Your task to perform on an android device: Search for "bose soundlink mini" on bestbuy, select the first entry, and add it to the cart. Image 0: 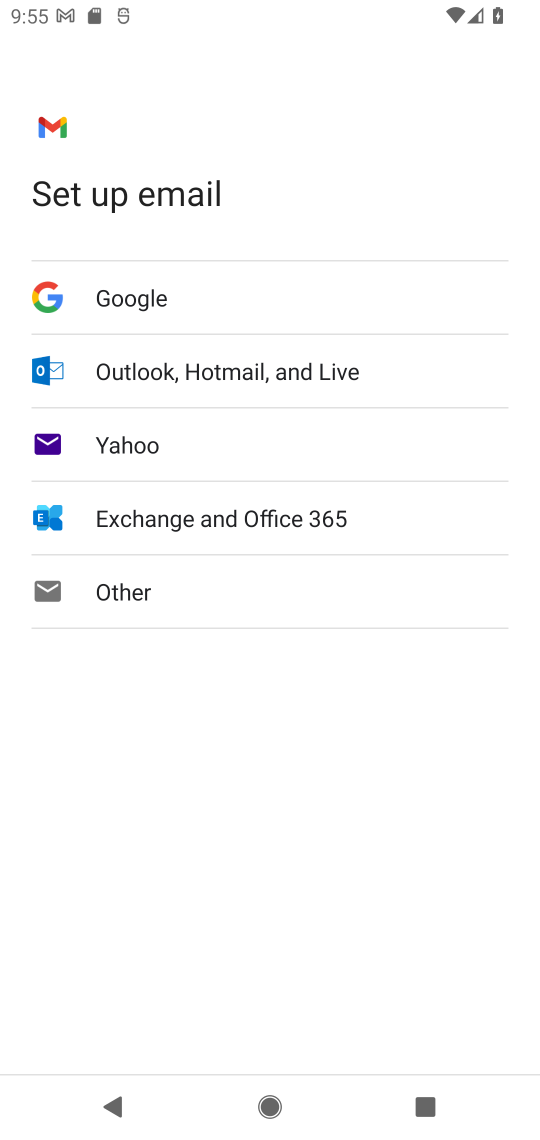
Step 0: press home button
Your task to perform on an android device: Search for "bose soundlink mini" on bestbuy, select the first entry, and add it to the cart. Image 1: 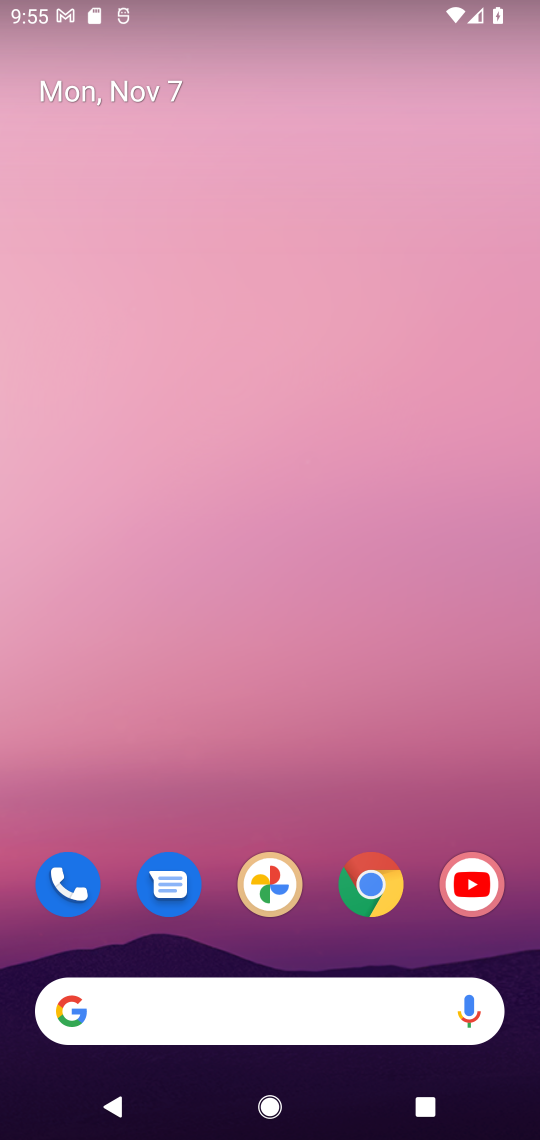
Step 1: click (364, 860)
Your task to perform on an android device: Search for "bose soundlink mini" on bestbuy, select the first entry, and add it to the cart. Image 2: 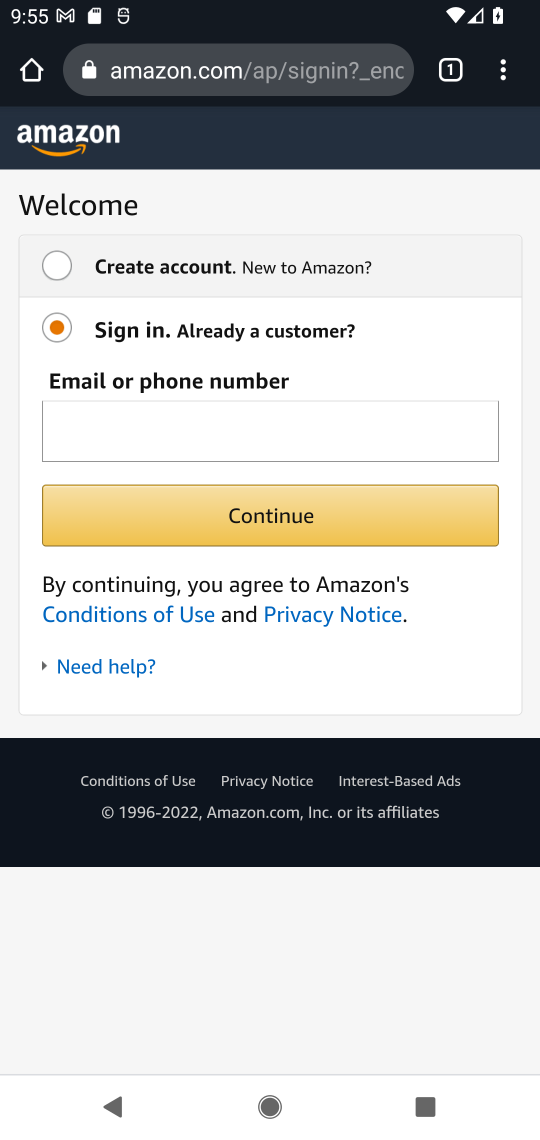
Step 2: click (324, 70)
Your task to perform on an android device: Search for "bose soundlink mini" on bestbuy, select the first entry, and add it to the cart. Image 3: 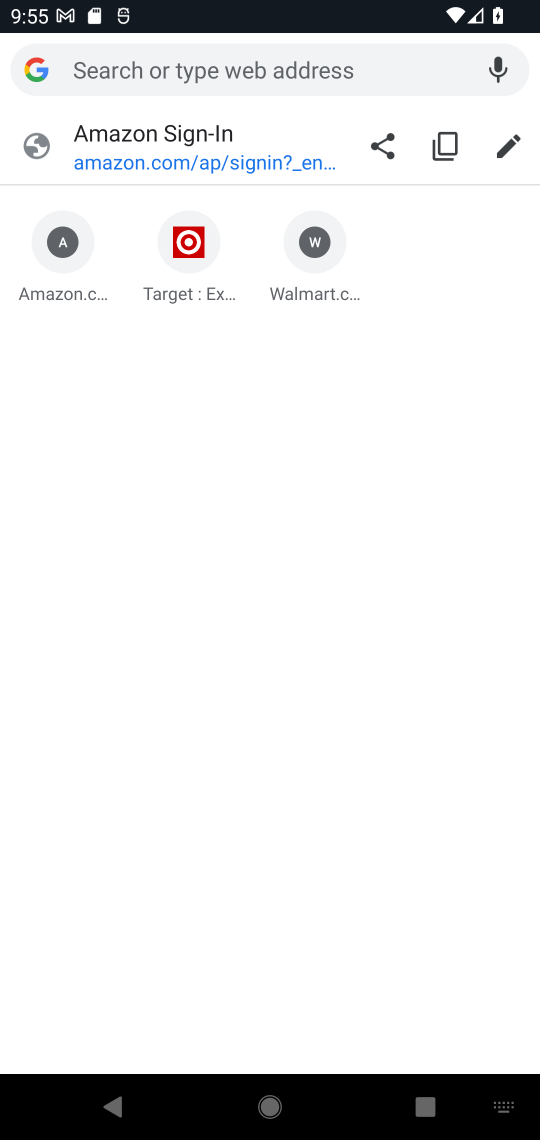
Step 3: type "bestbuy"
Your task to perform on an android device: Search for "bose soundlink mini" on bestbuy, select the first entry, and add it to the cart. Image 4: 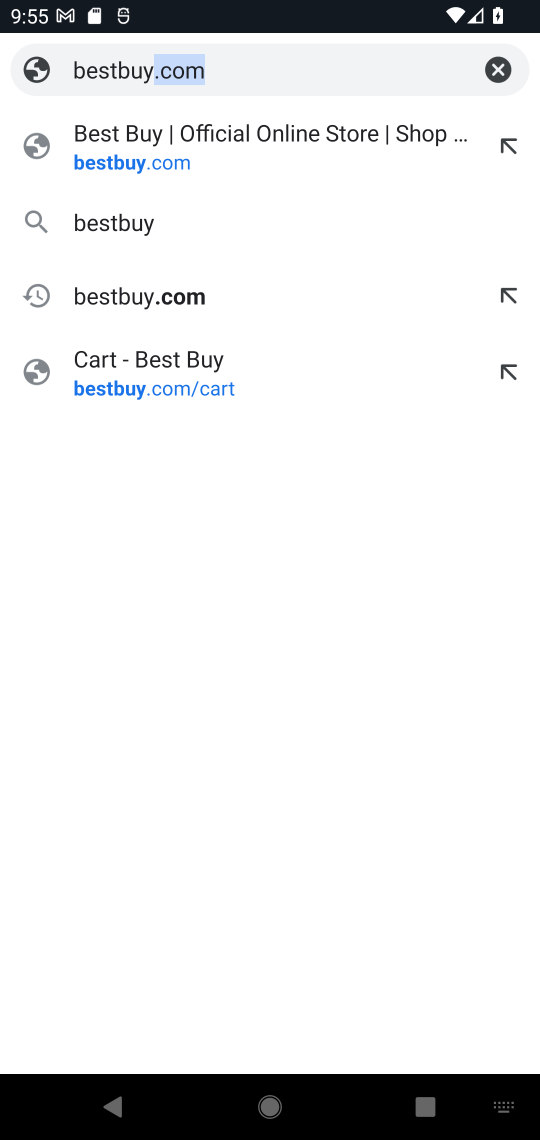
Step 4: click (191, 294)
Your task to perform on an android device: Search for "bose soundlink mini" on bestbuy, select the first entry, and add it to the cart. Image 5: 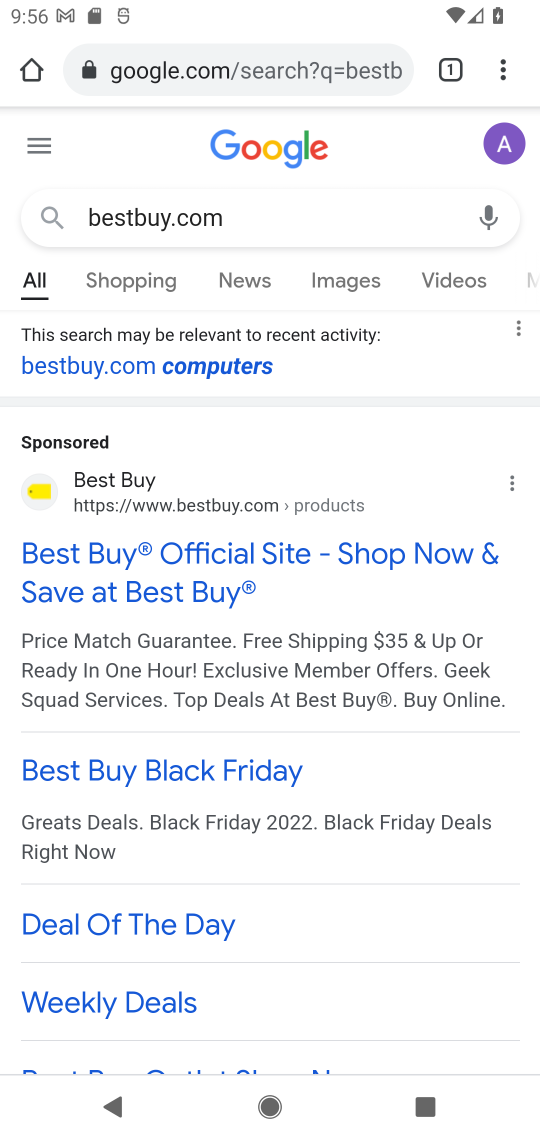
Step 5: click (134, 495)
Your task to perform on an android device: Search for "bose soundlink mini" on bestbuy, select the first entry, and add it to the cart. Image 6: 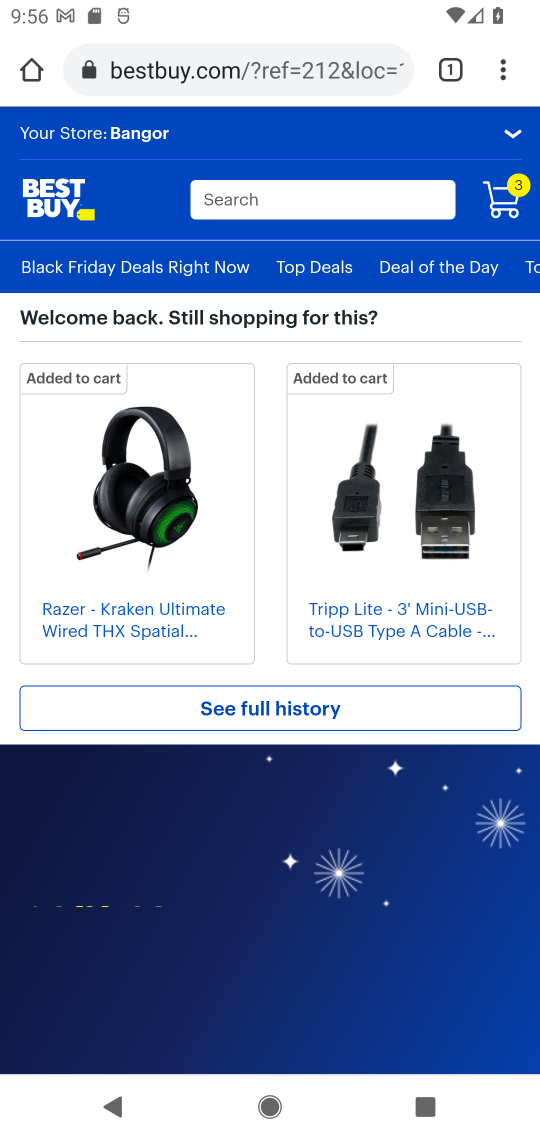
Step 6: click (325, 199)
Your task to perform on an android device: Search for "bose soundlink mini" on bestbuy, select the first entry, and add it to the cart. Image 7: 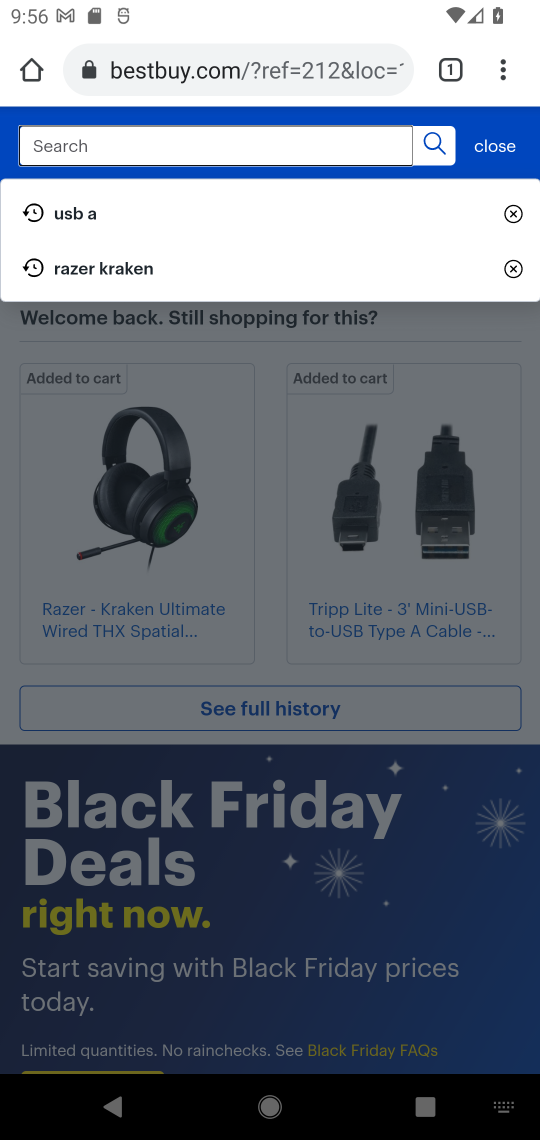
Step 7: type "bose soundlink mini"
Your task to perform on an android device: Search for "bose soundlink mini" on bestbuy, select the first entry, and add it to the cart. Image 8: 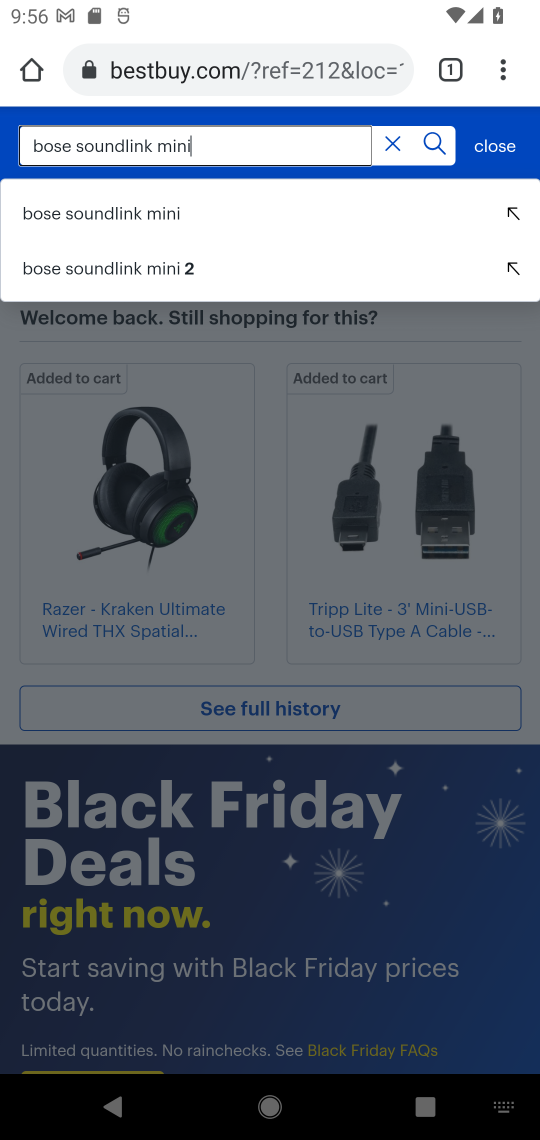
Step 8: click (128, 217)
Your task to perform on an android device: Search for "bose soundlink mini" on bestbuy, select the first entry, and add it to the cart. Image 9: 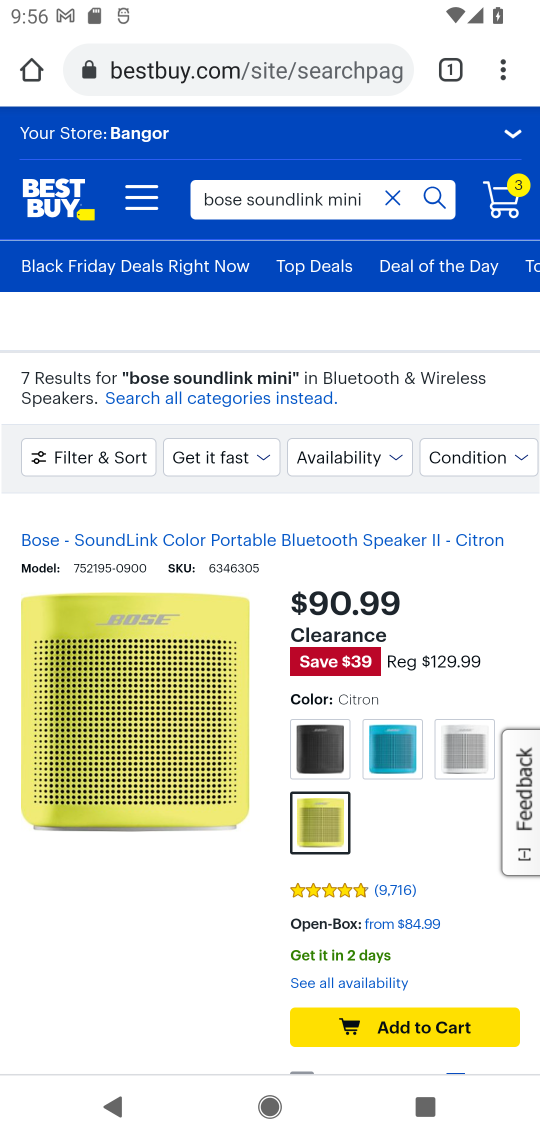
Step 9: drag from (214, 862) to (247, 325)
Your task to perform on an android device: Search for "bose soundlink mini" on bestbuy, select the first entry, and add it to the cart. Image 10: 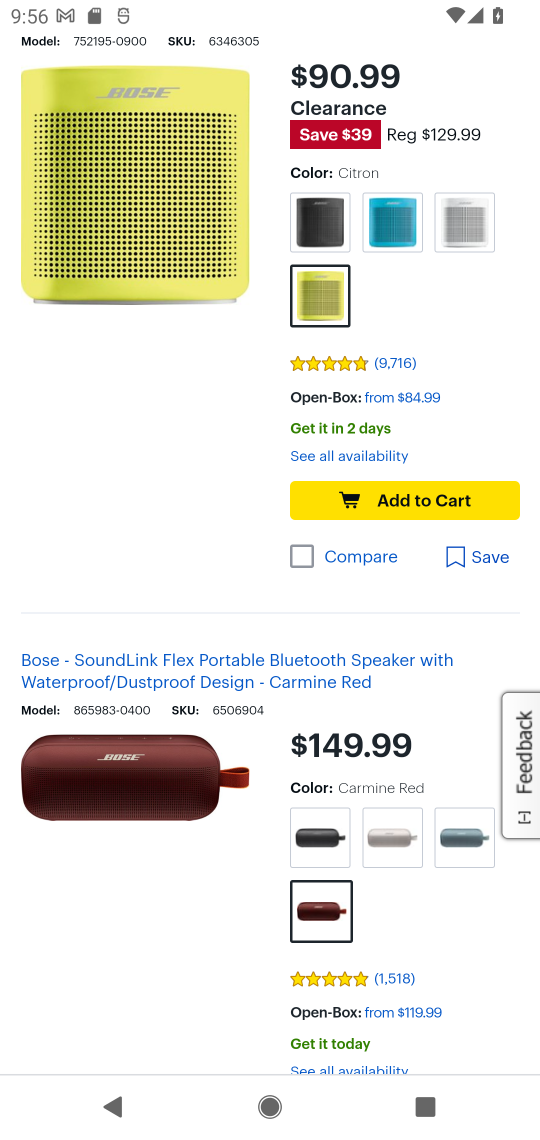
Step 10: click (130, 831)
Your task to perform on an android device: Search for "bose soundlink mini" on bestbuy, select the first entry, and add it to the cart. Image 11: 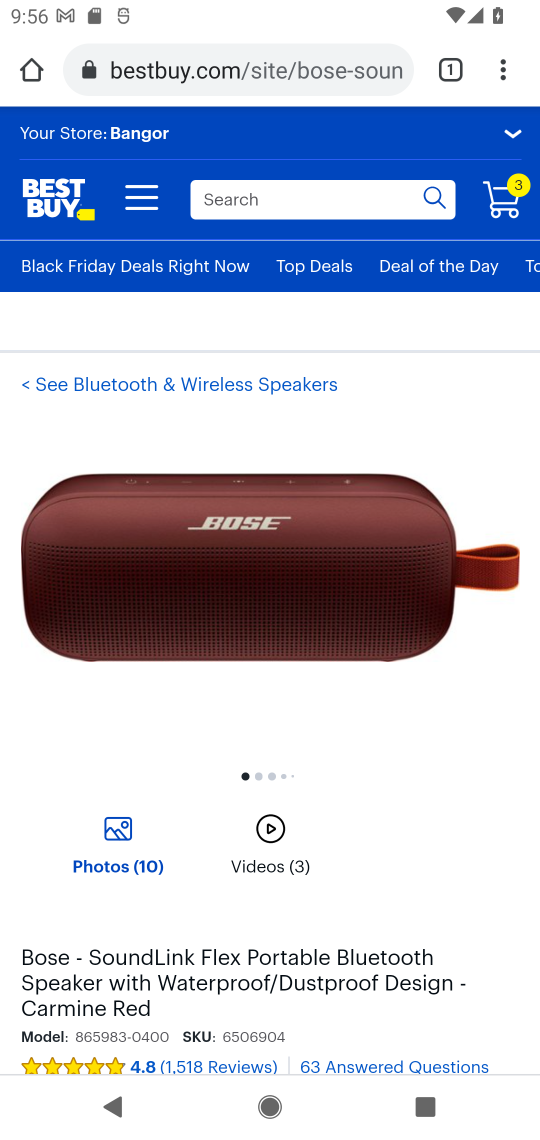
Step 11: task complete